Your task to perform on an android device: What's on my calendar today? Image 0: 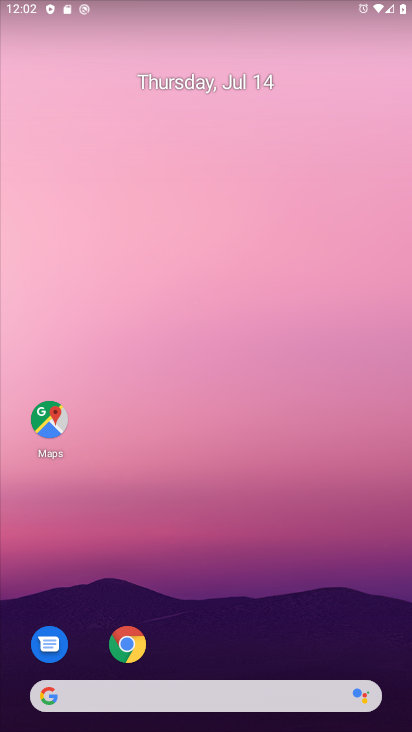
Step 0: drag from (231, 647) to (194, 34)
Your task to perform on an android device: What's on my calendar today? Image 1: 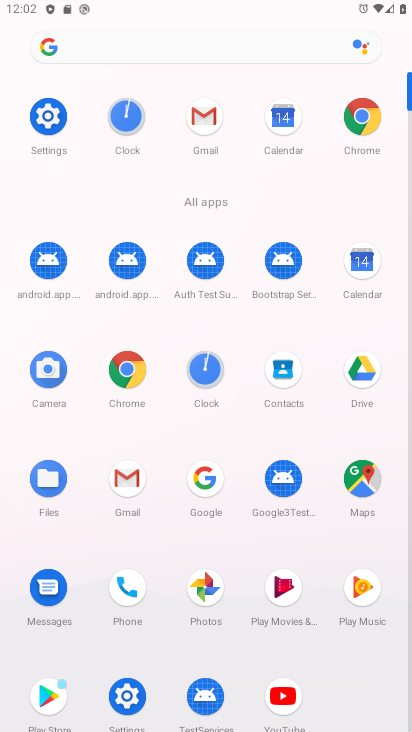
Step 1: click (359, 293)
Your task to perform on an android device: What's on my calendar today? Image 2: 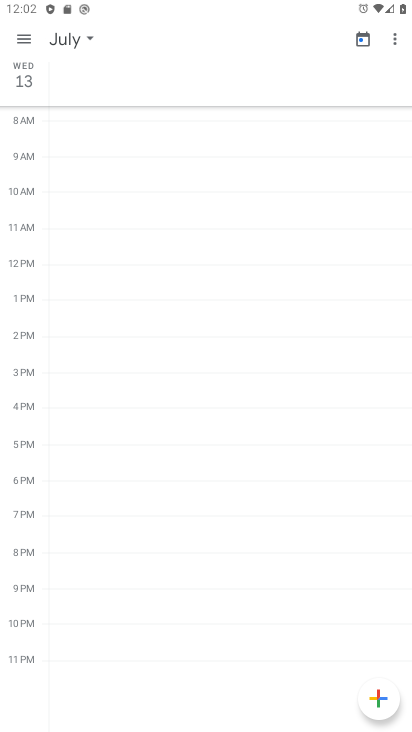
Step 2: click (368, 37)
Your task to perform on an android device: What's on my calendar today? Image 3: 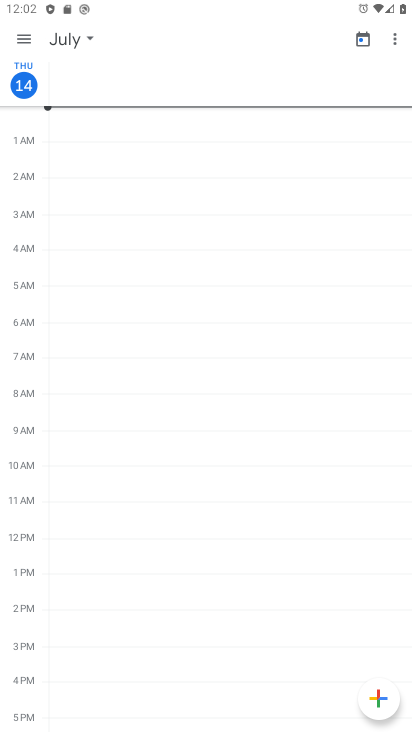
Step 3: click (20, 81)
Your task to perform on an android device: What's on my calendar today? Image 4: 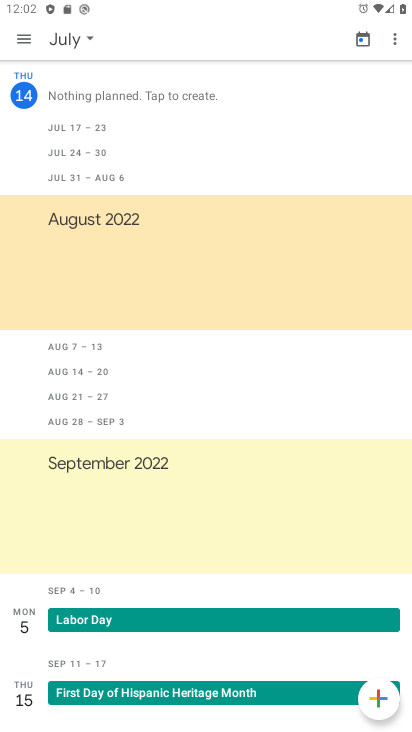
Step 4: task complete